Your task to perform on an android device: turn off picture-in-picture Image 0: 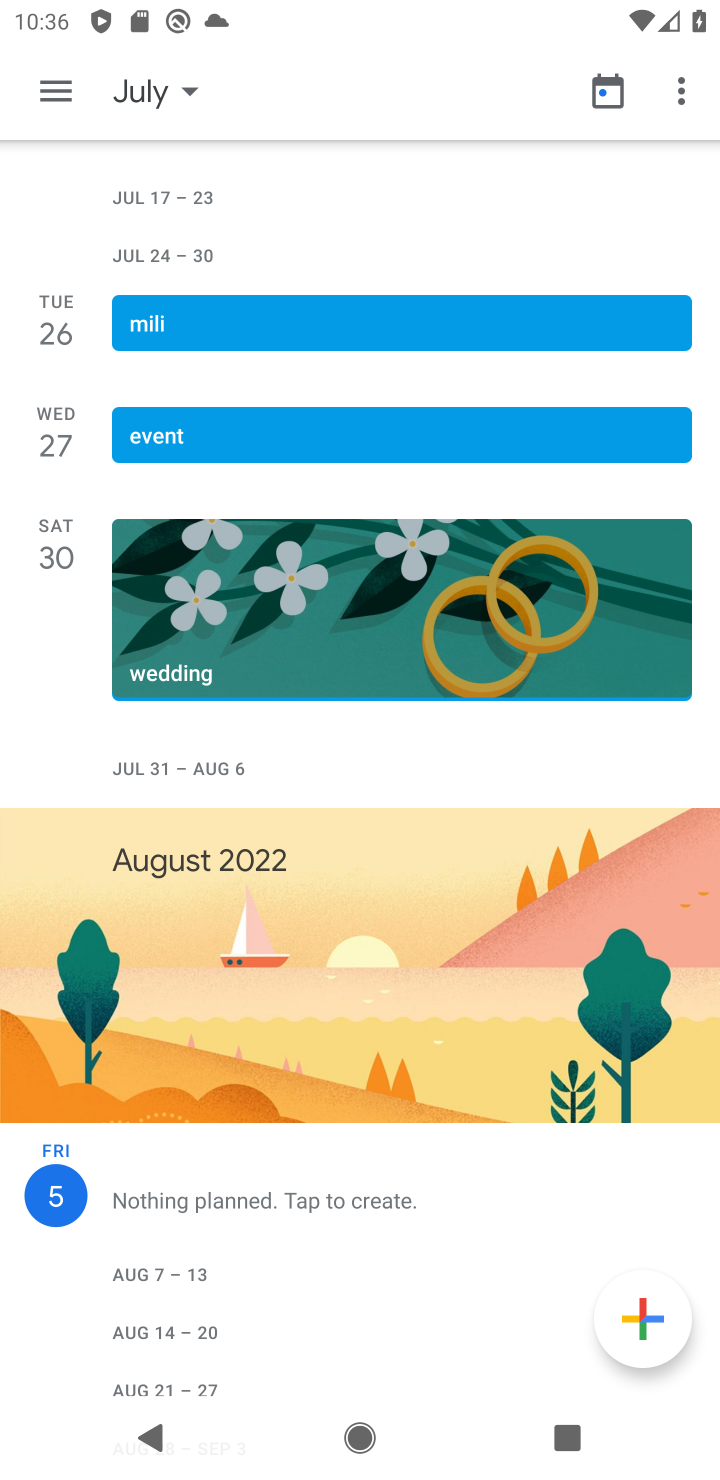
Step 0: press home button
Your task to perform on an android device: turn off picture-in-picture Image 1: 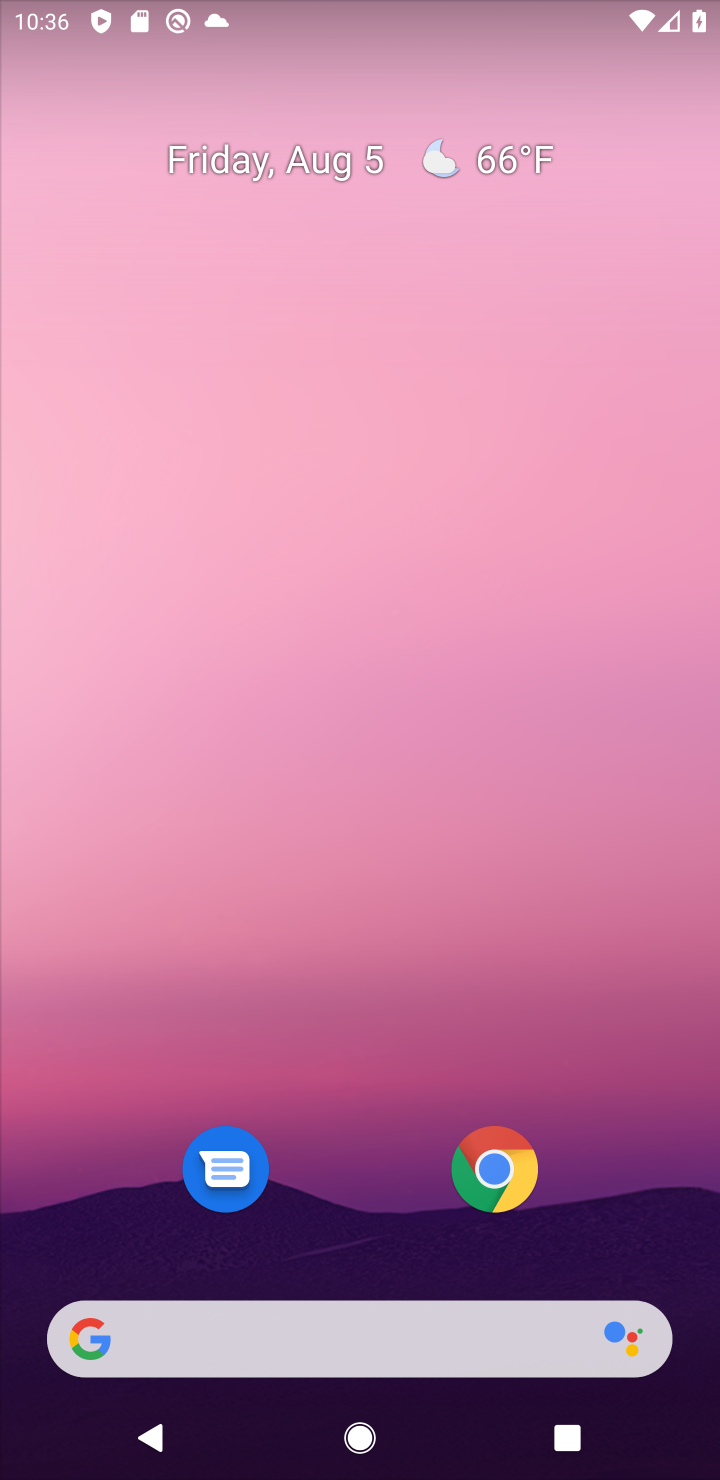
Step 1: drag from (644, 1232) to (582, 648)
Your task to perform on an android device: turn off picture-in-picture Image 2: 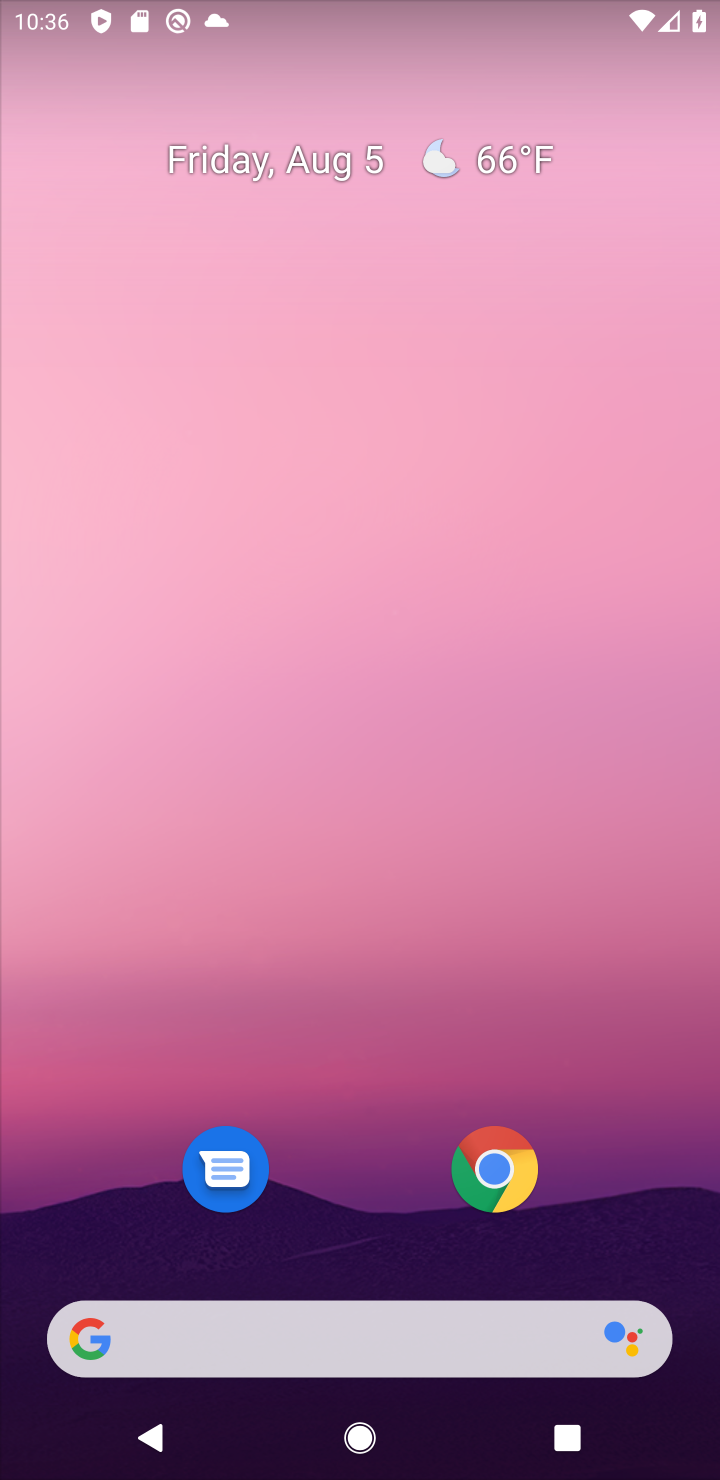
Step 2: drag from (631, 1218) to (536, 337)
Your task to perform on an android device: turn off picture-in-picture Image 3: 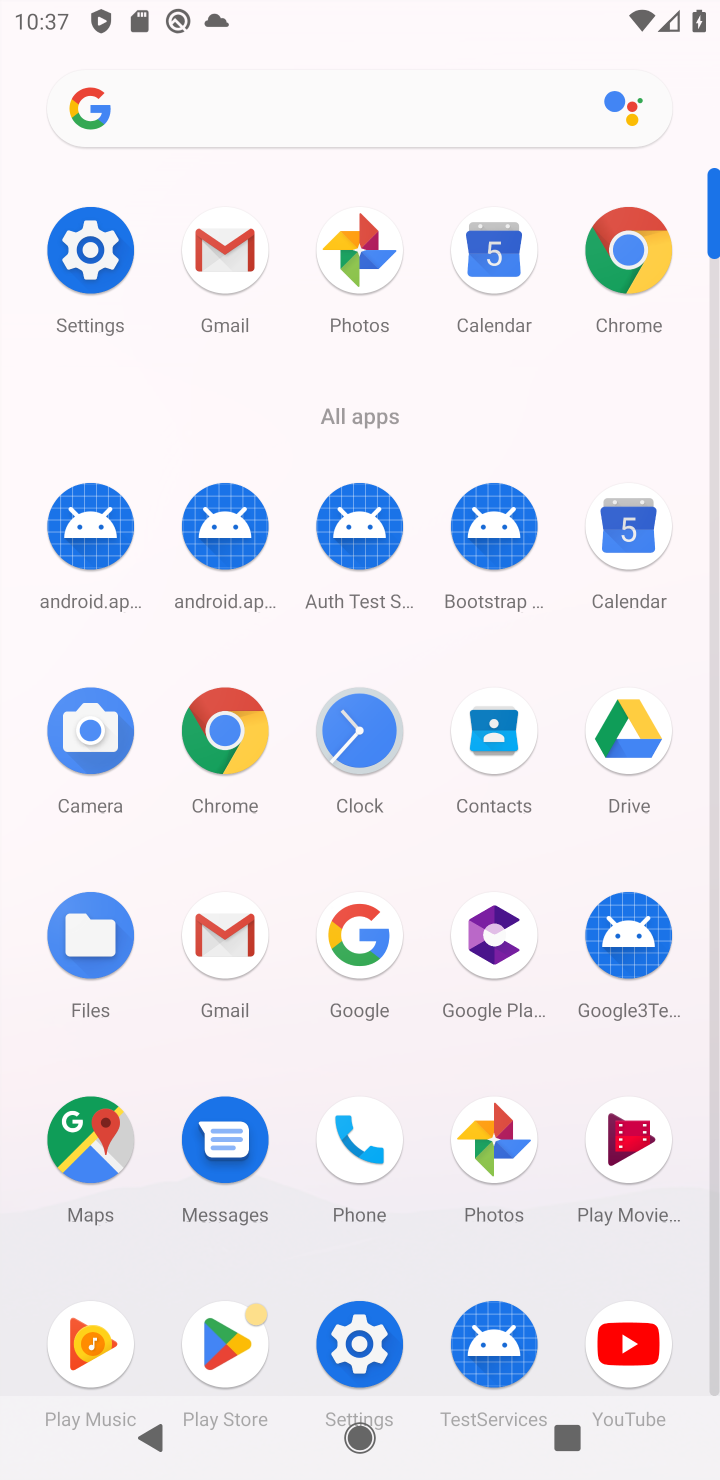
Step 3: click (366, 1345)
Your task to perform on an android device: turn off picture-in-picture Image 4: 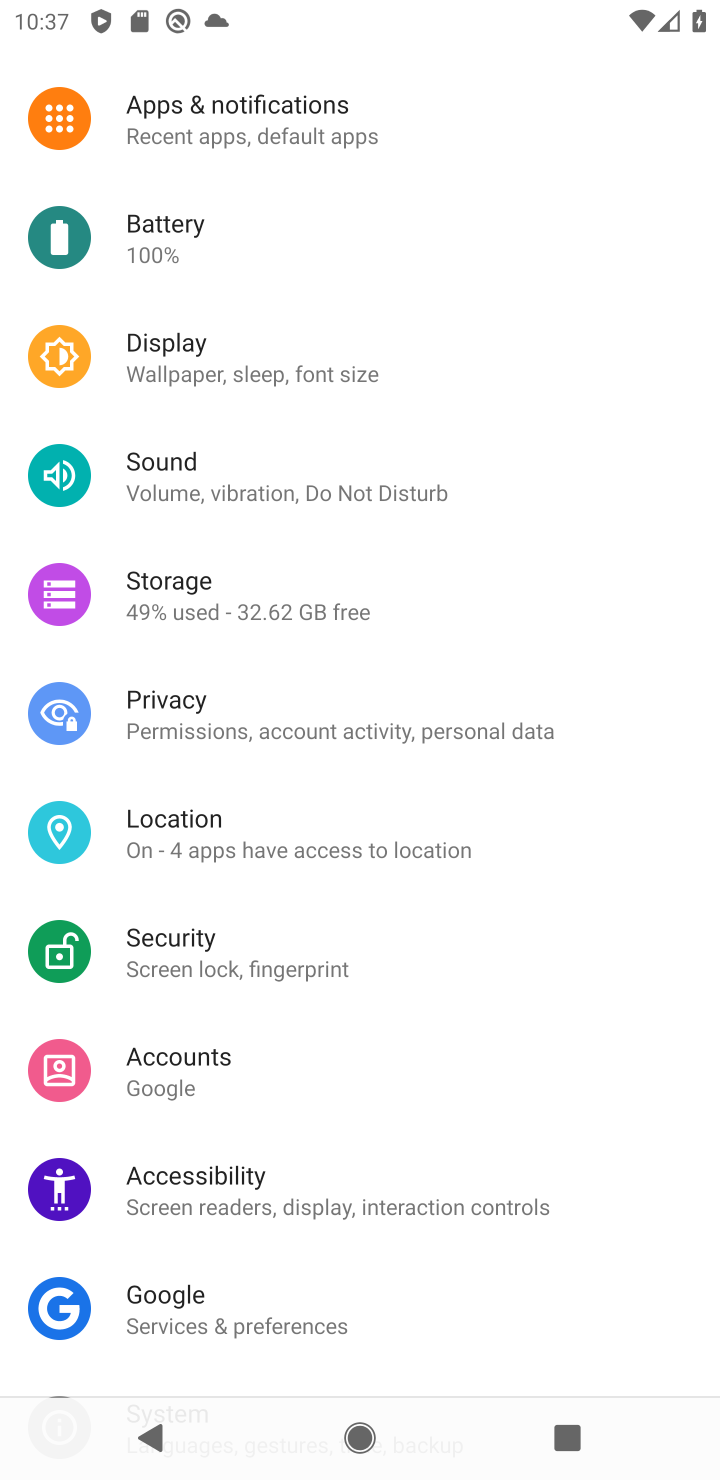
Step 4: click (267, 108)
Your task to perform on an android device: turn off picture-in-picture Image 5: 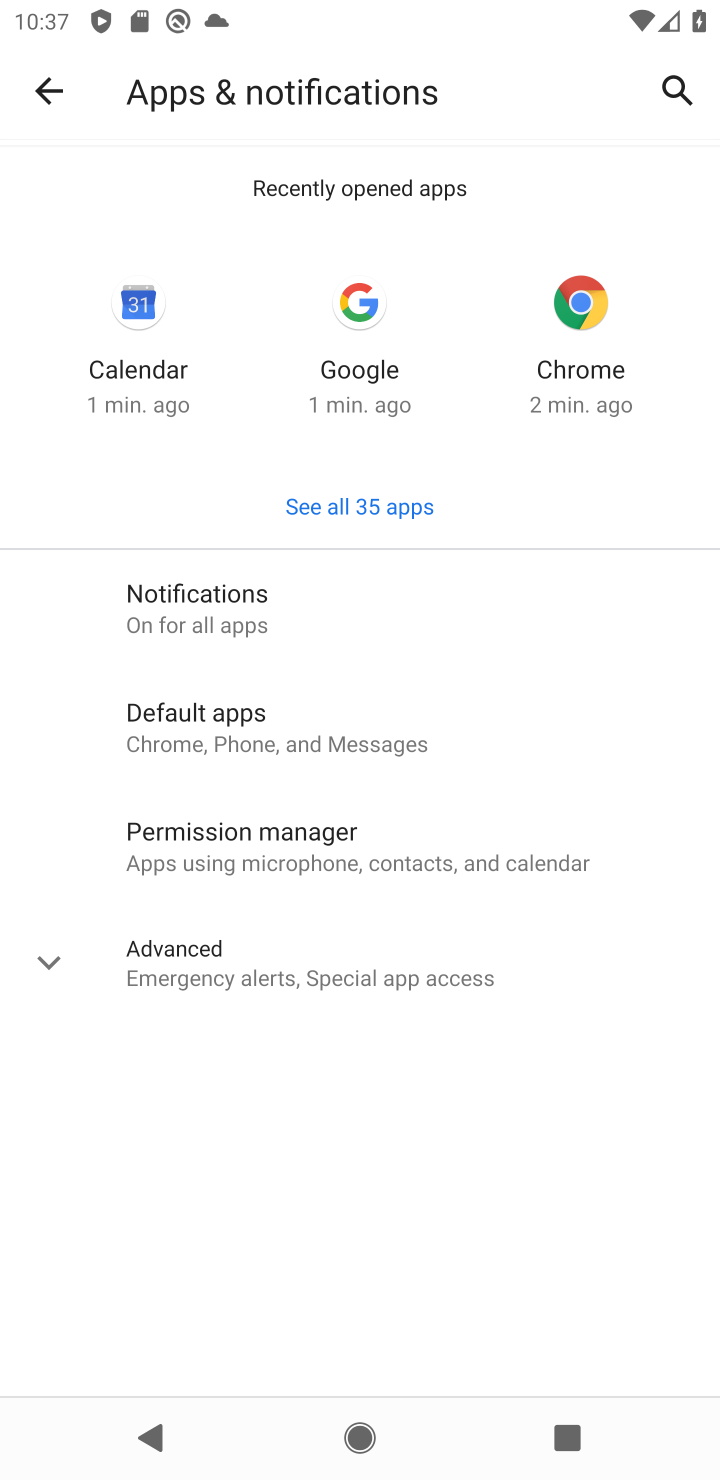
Step 5: click (46, 962)
Your task to perform on an android device: turn off picture-in-picture Image 6: 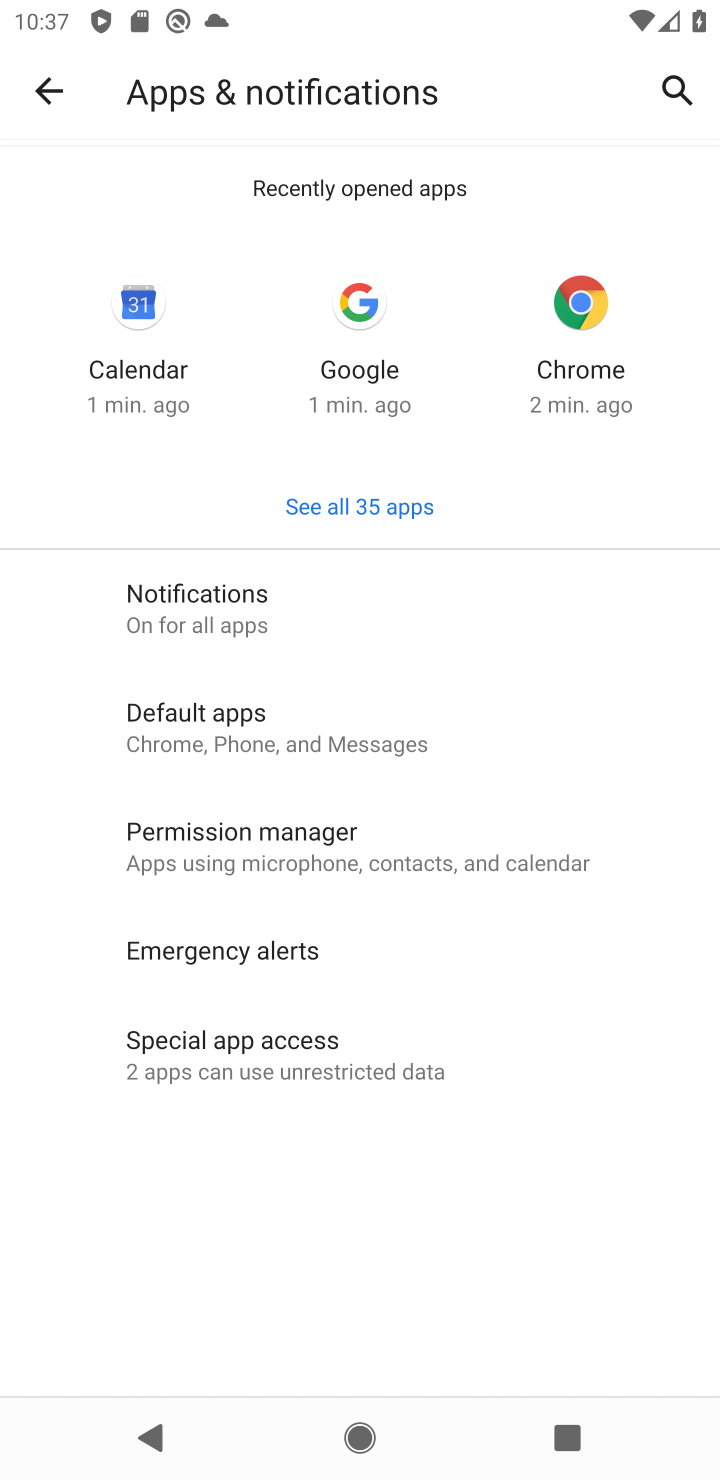
Step 6: click (218, 1042)
Your task to perform on an android device: turn off picture-in-picture Image 7: 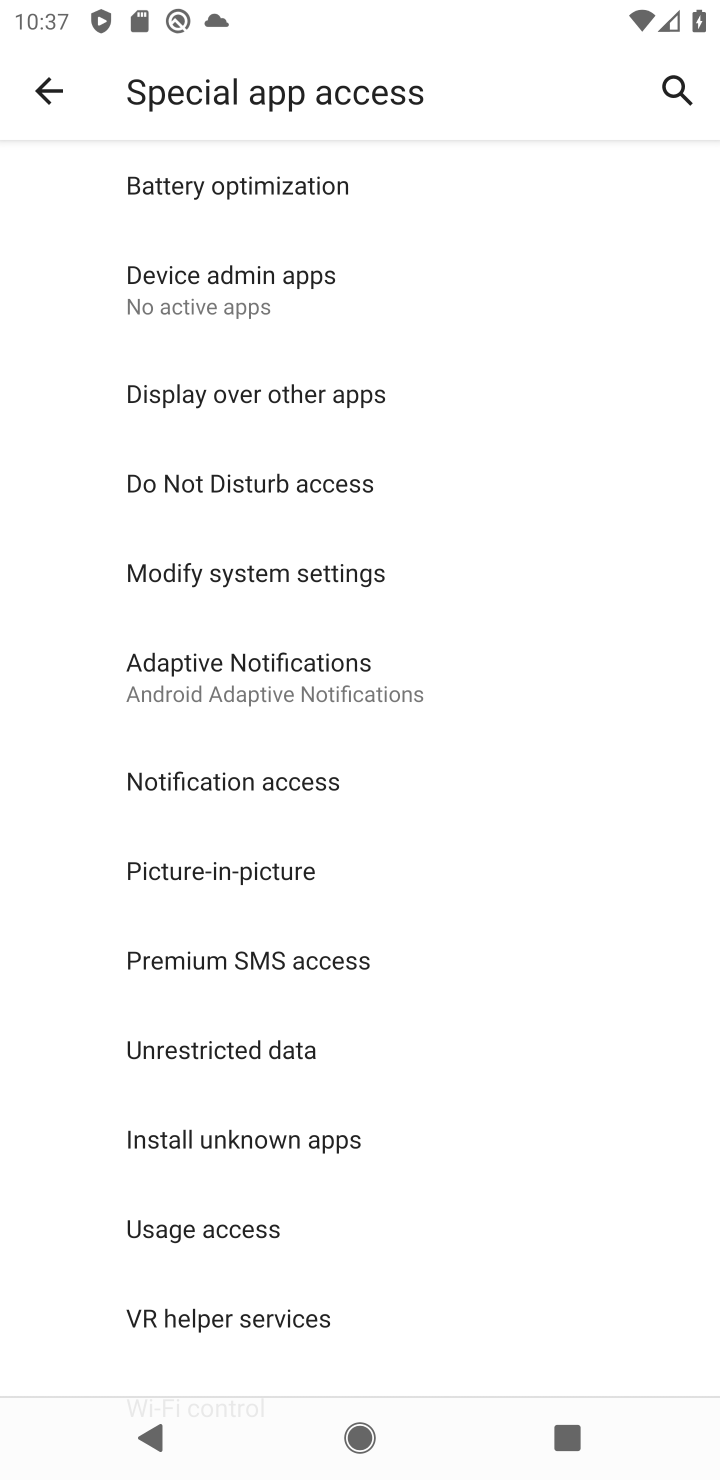
Step 7: click (235, 873)
Your task to perform on an android device: turn off picture-in-picture Image 8: 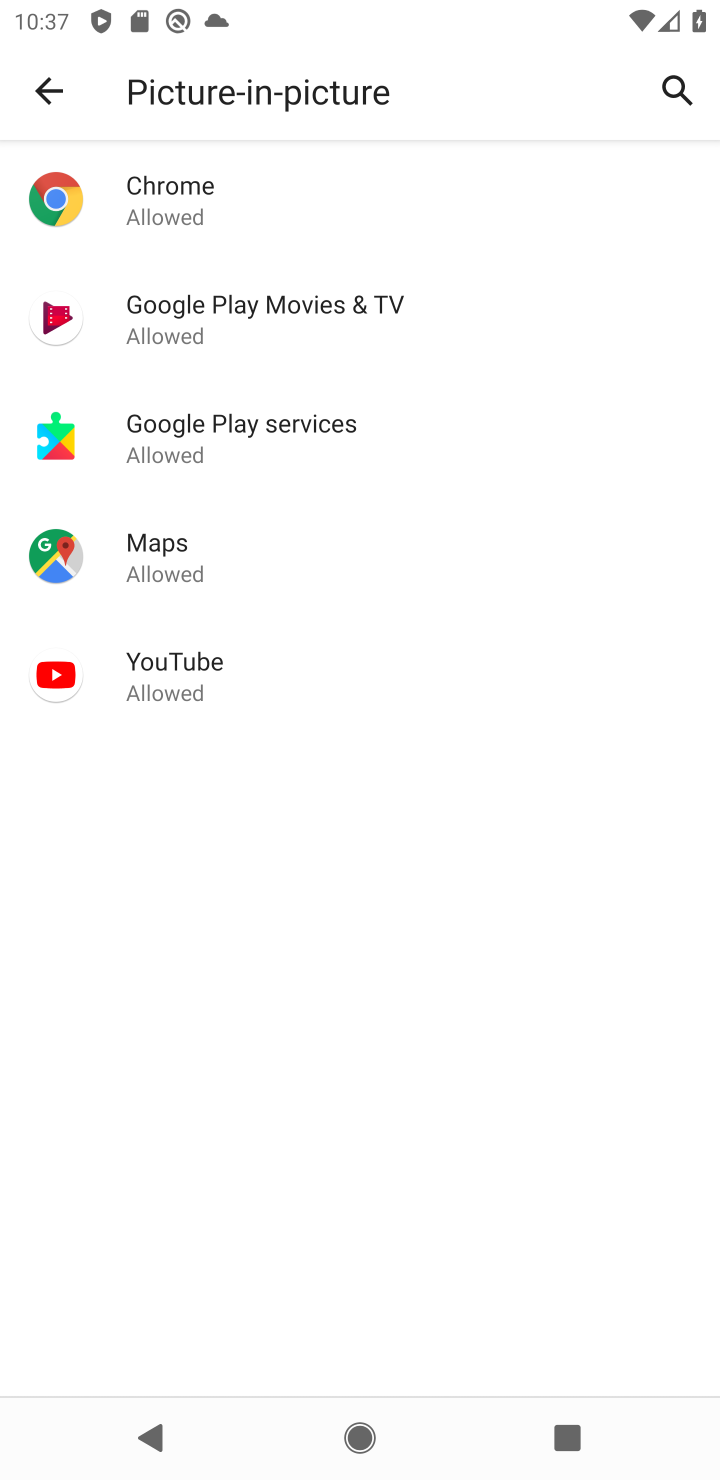
Step 8: click (171, 663)
Your task to perform on an android device: turn off picture-in-picture Image 9: 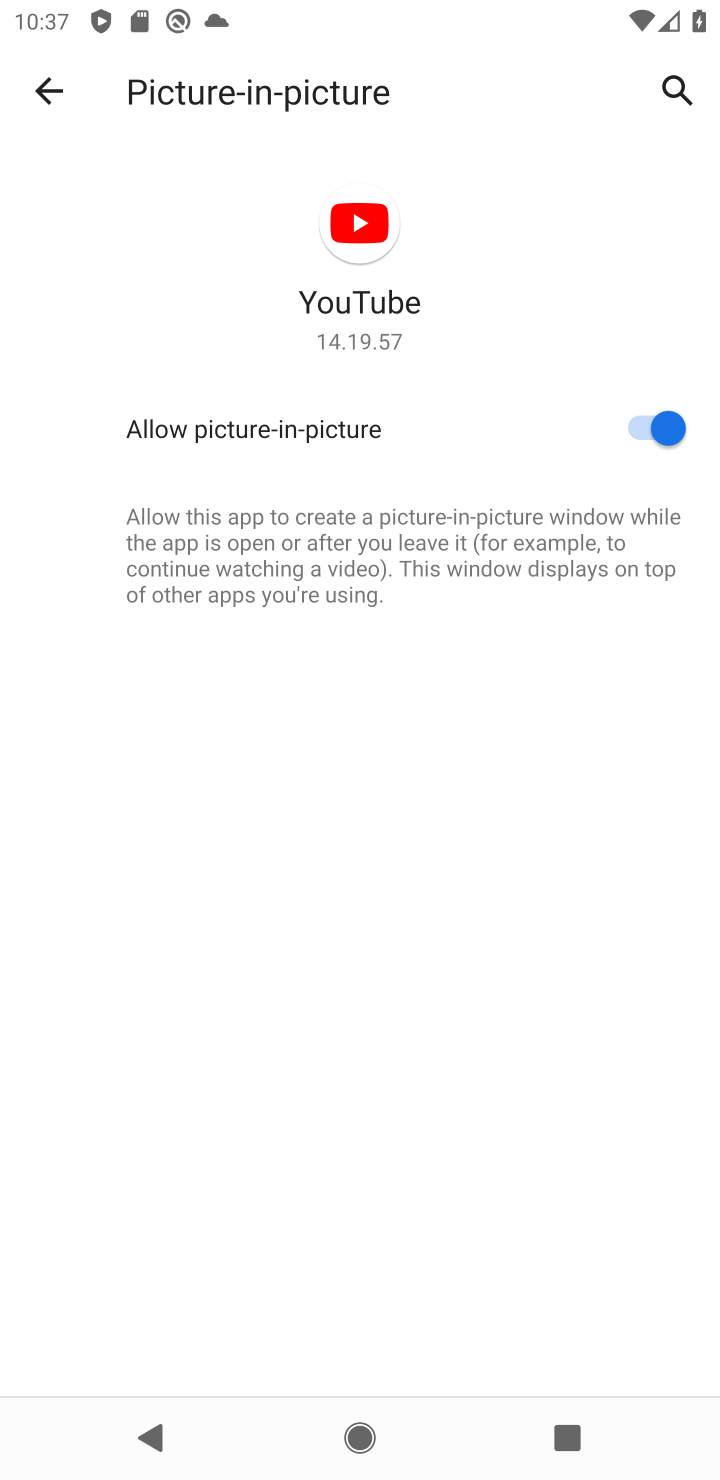
Step 9: click (627, 429)
Your task to perform on an android device: turn off picture-in-picture Image 10: 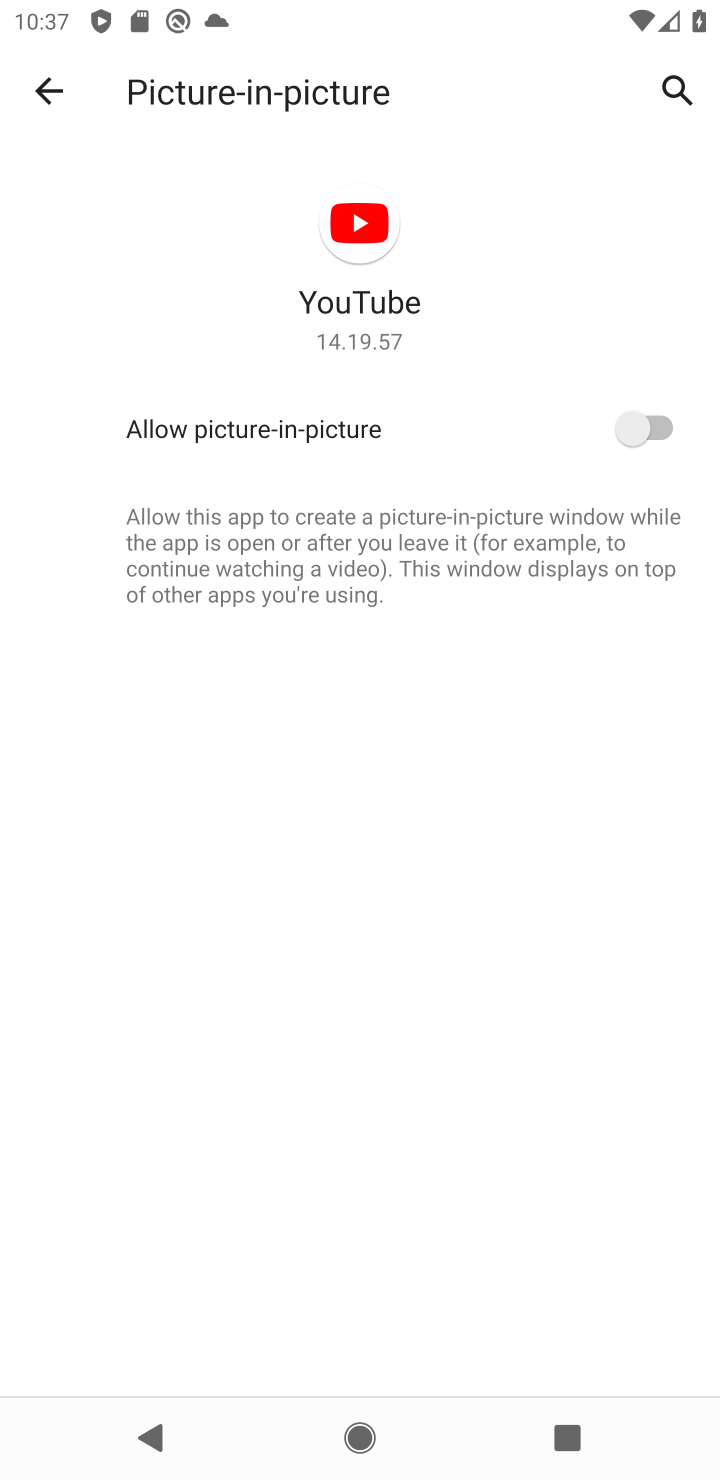
Step 10: task complete